Your task to perform on an android device: open app "The Home Depot" (install if not already installed), go to login, and select forgot password Image 0: 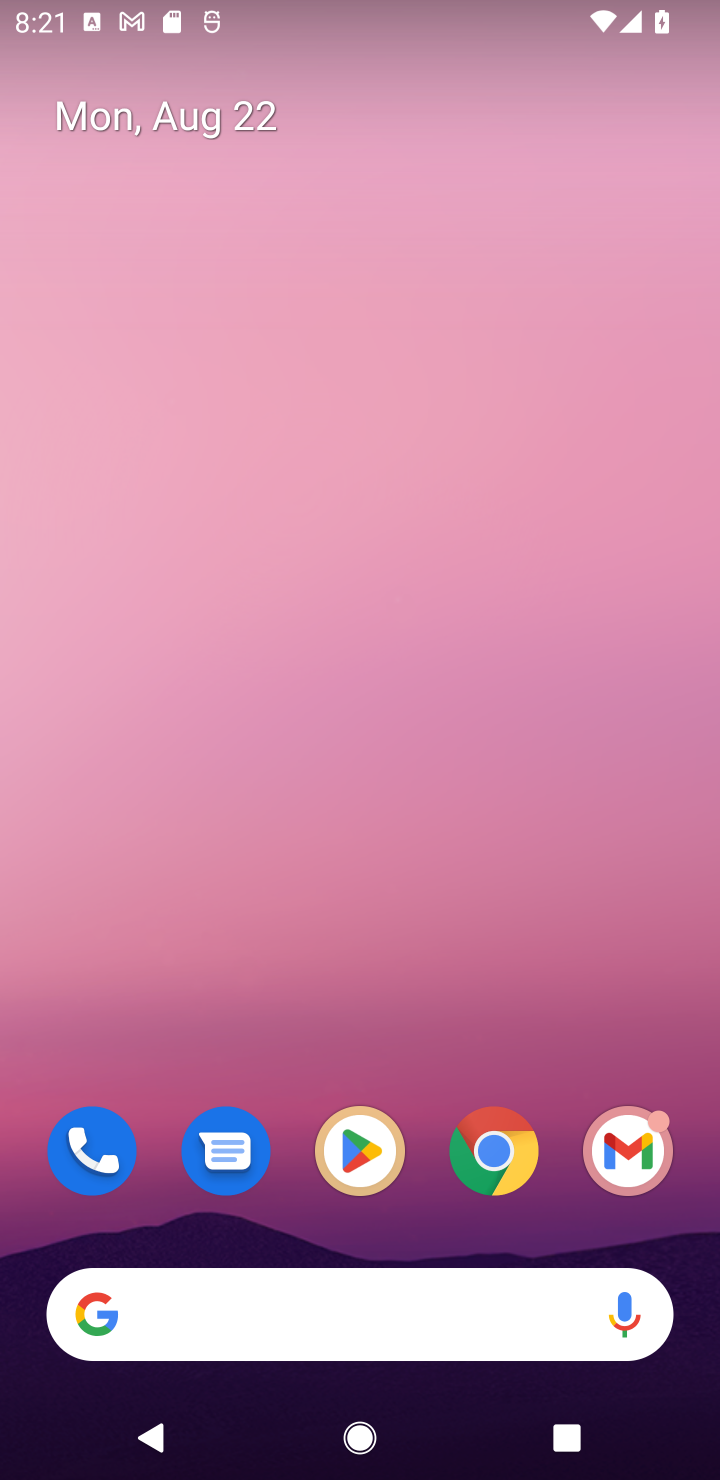
Step 0: click (357, 1160)
Your task to perform on an android device: open app "The Home Depot" (install if not already installed), go to login, and select forgot password Image 1: 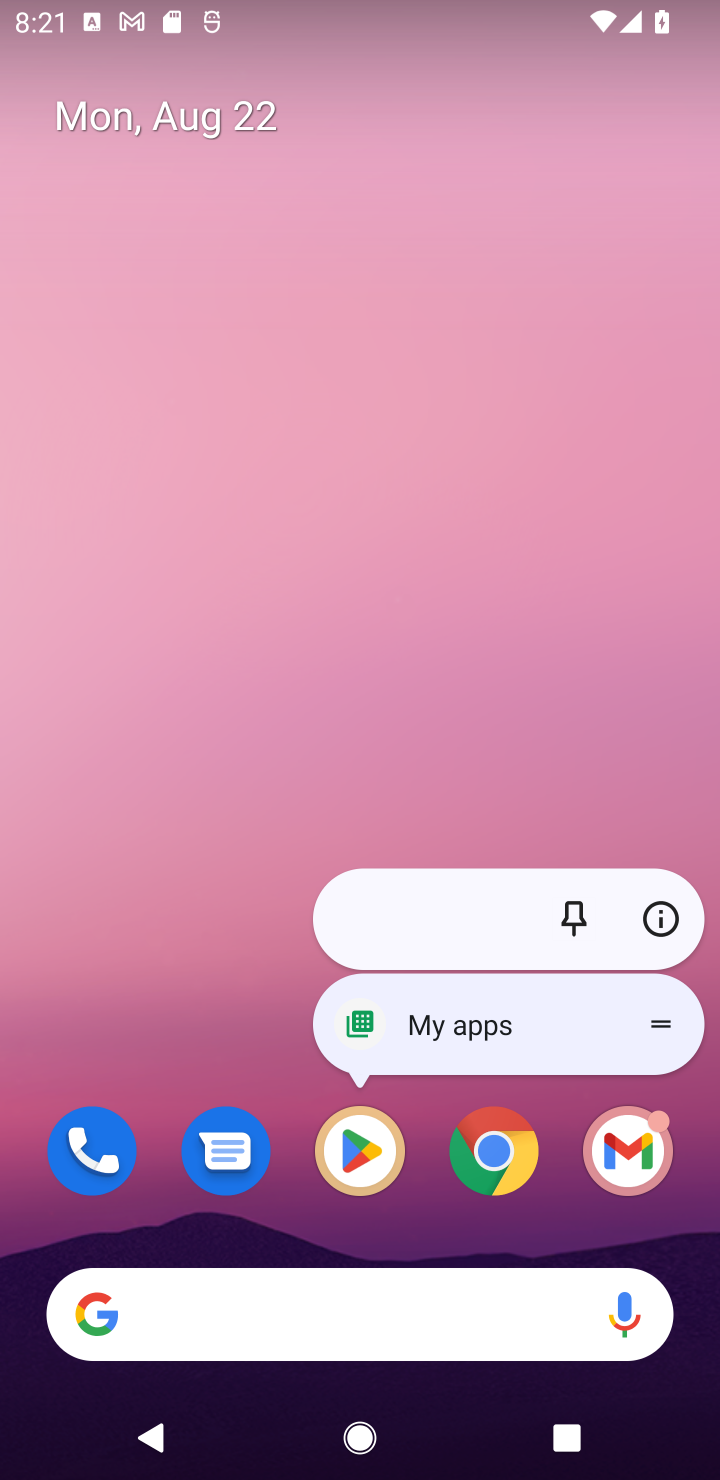
Step 1: click (357, 1171)
Your task to perform on an android device: open app "The Home Depot" (install if not already installed), go to login, and select forgot password Image 2: 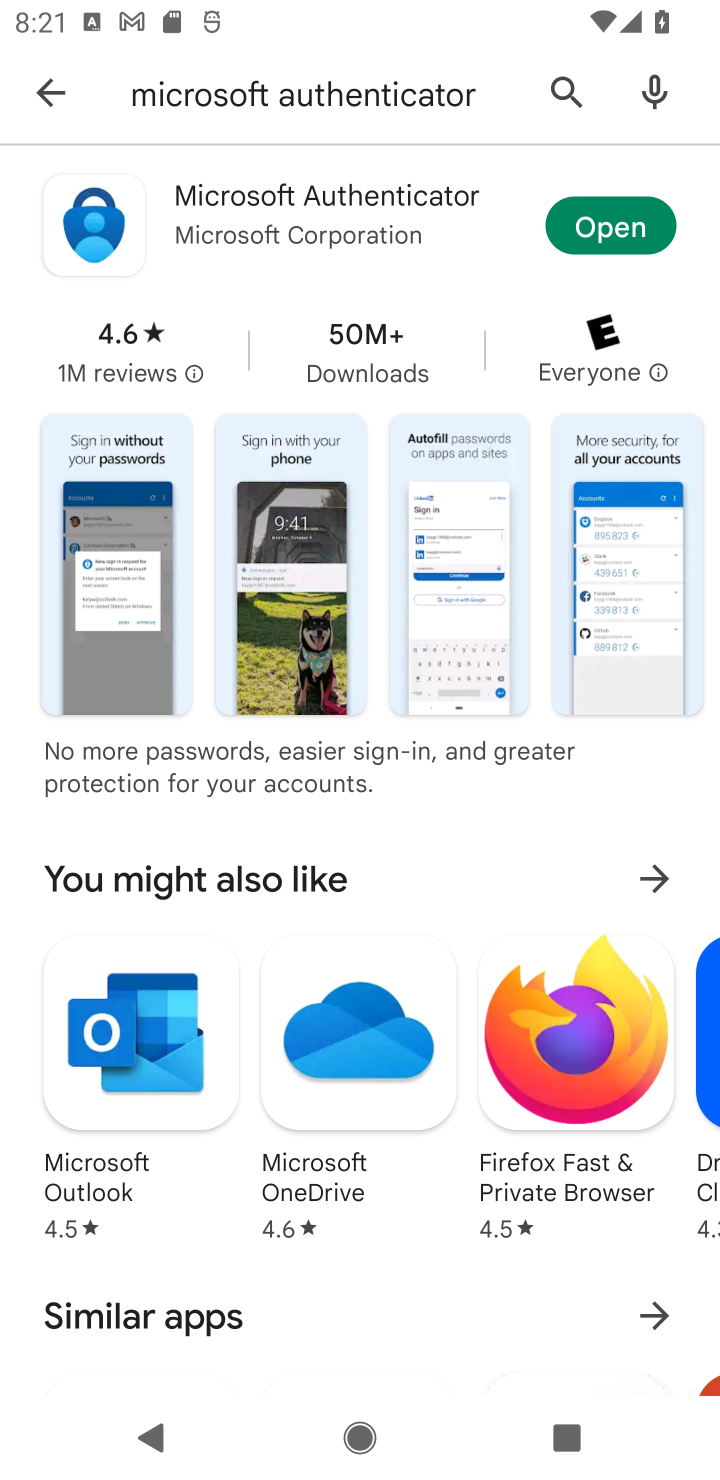
Step 2: click (553, 76)
Your task to perform on an android device: open app "The Home Depot" (install if not already installed), go to login, and select forgot password Image 3: 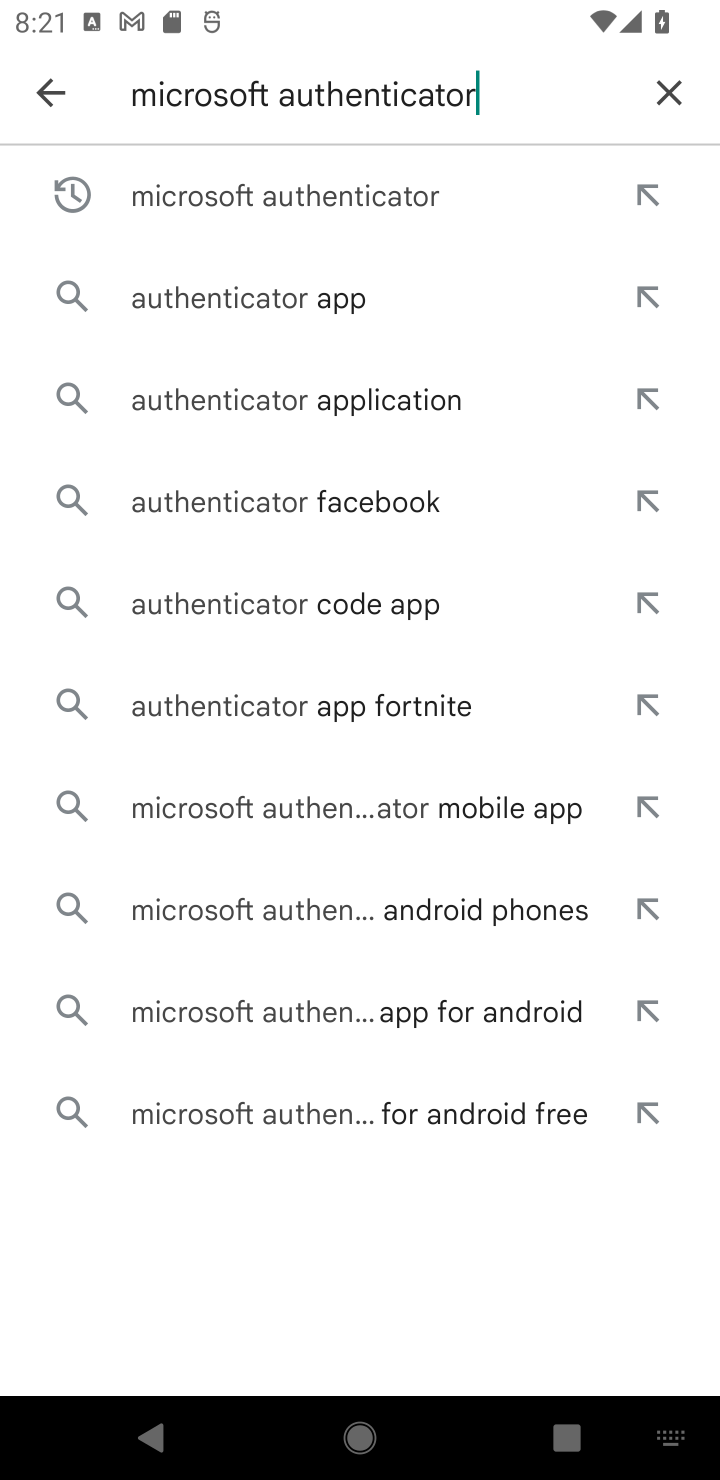
Step 3: click (691, 79)
Your task to perform on an android device: open app "The Home Depot" (install if not already installed), go to login, and select forgot password Image 4: 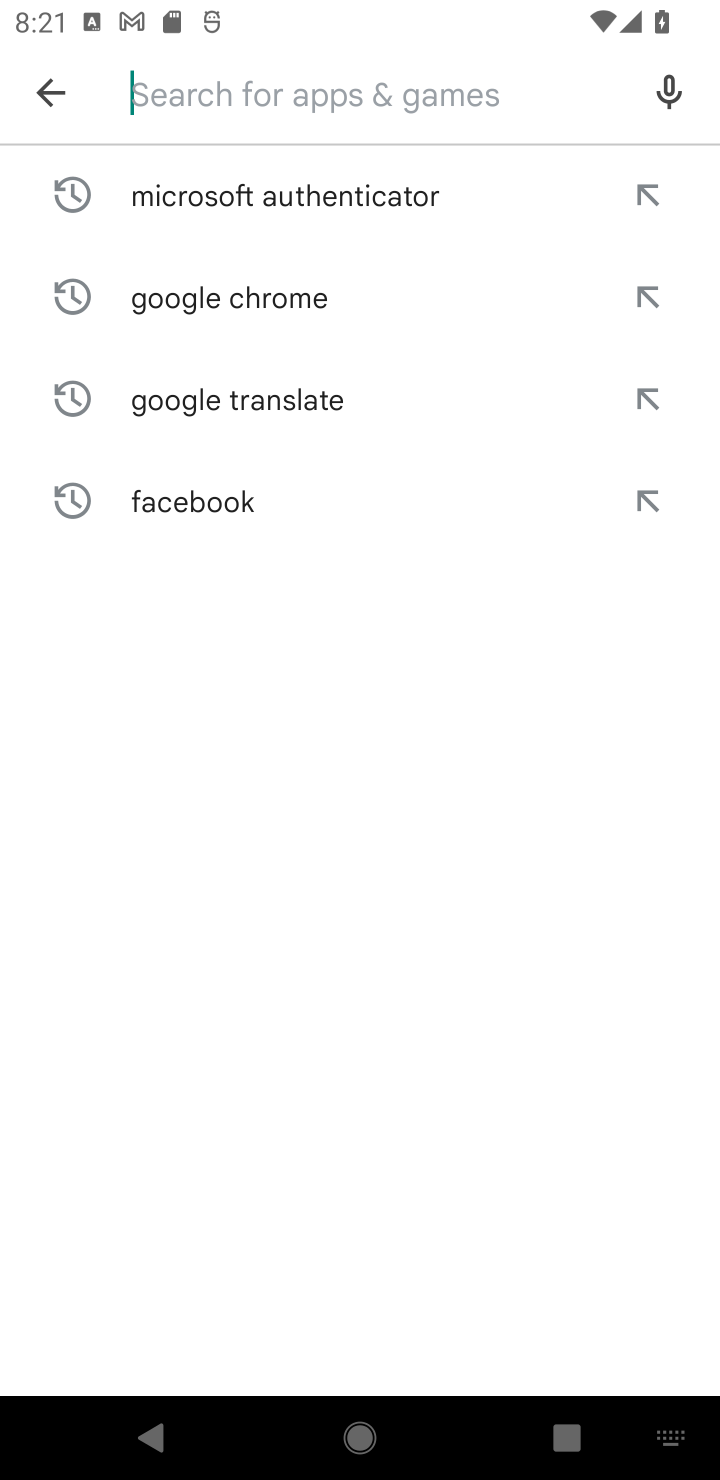
Step 4: type "The Home Depot"
Your task to perform on an android device: open app "The Home Depot" (install if not already installed), go to login, and select forgot password Image 5: 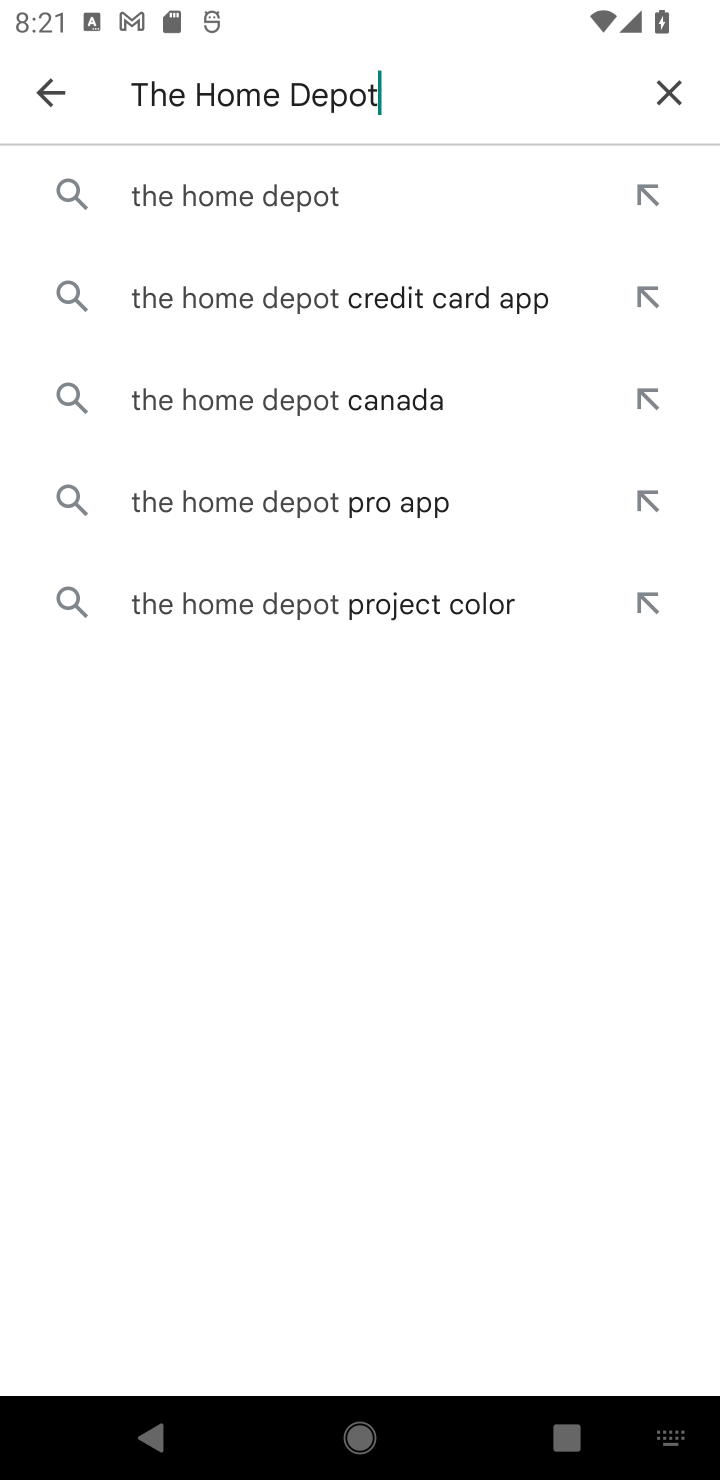
Step 5: click (242, 199)
Your task to perform on an android device: open app "The Home Depot" (install if not already installed), go to login, and select forgot password Image 6: 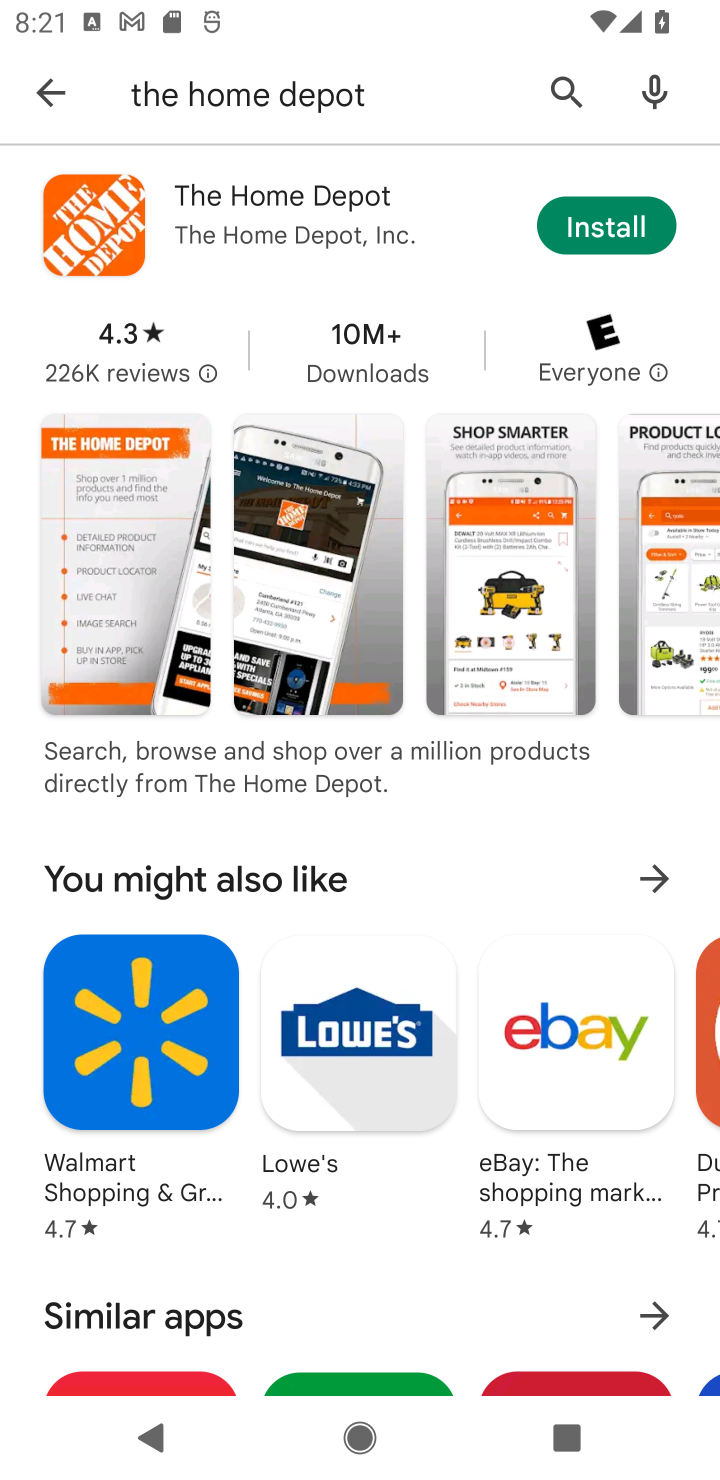
Step 6: click (595, 231)
Your task to perform on an android device: open app "The Home Depot" (install if not already installed), go to login, and select forgot password Image 7: 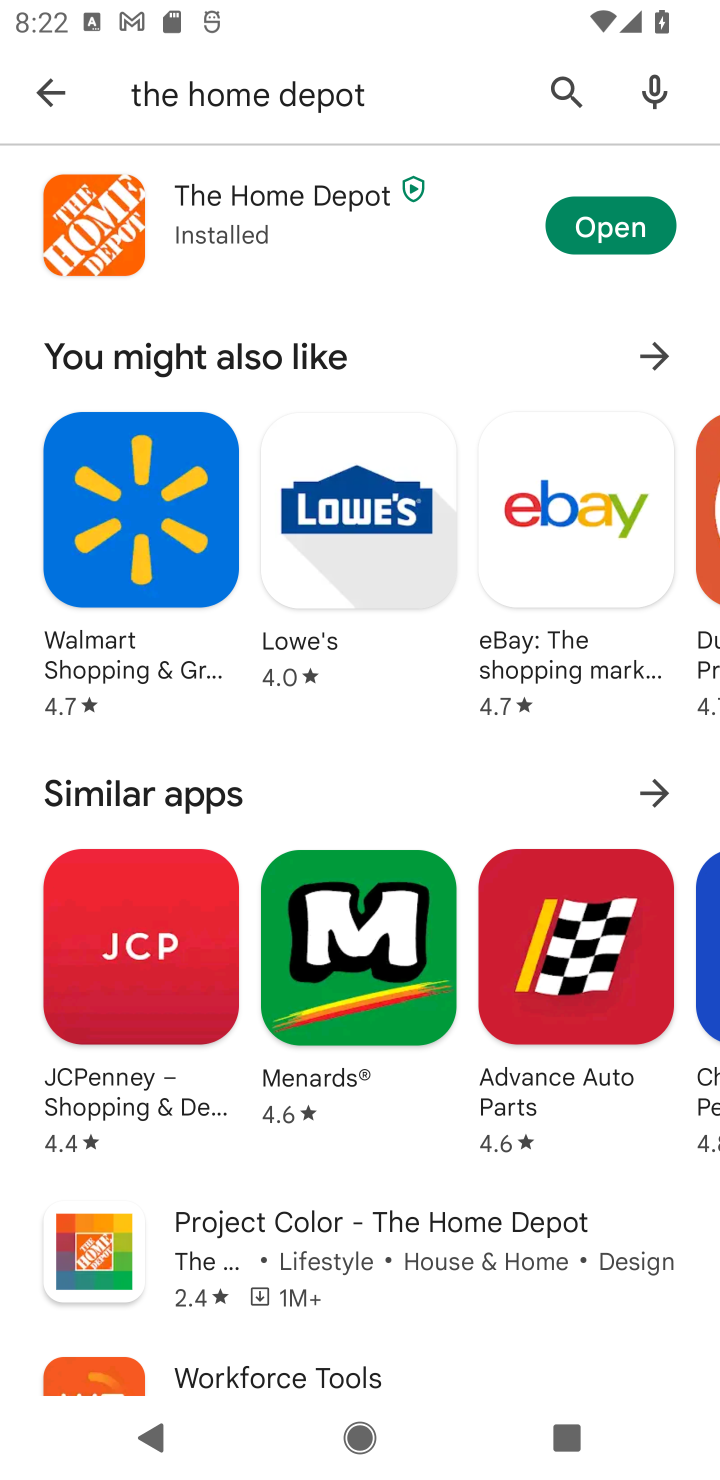
Step 7: click (597, 226)
Your task to perform on an android device: open app "The Home Depot" (install if not already installed), go to login, and select forgot password Image 8: 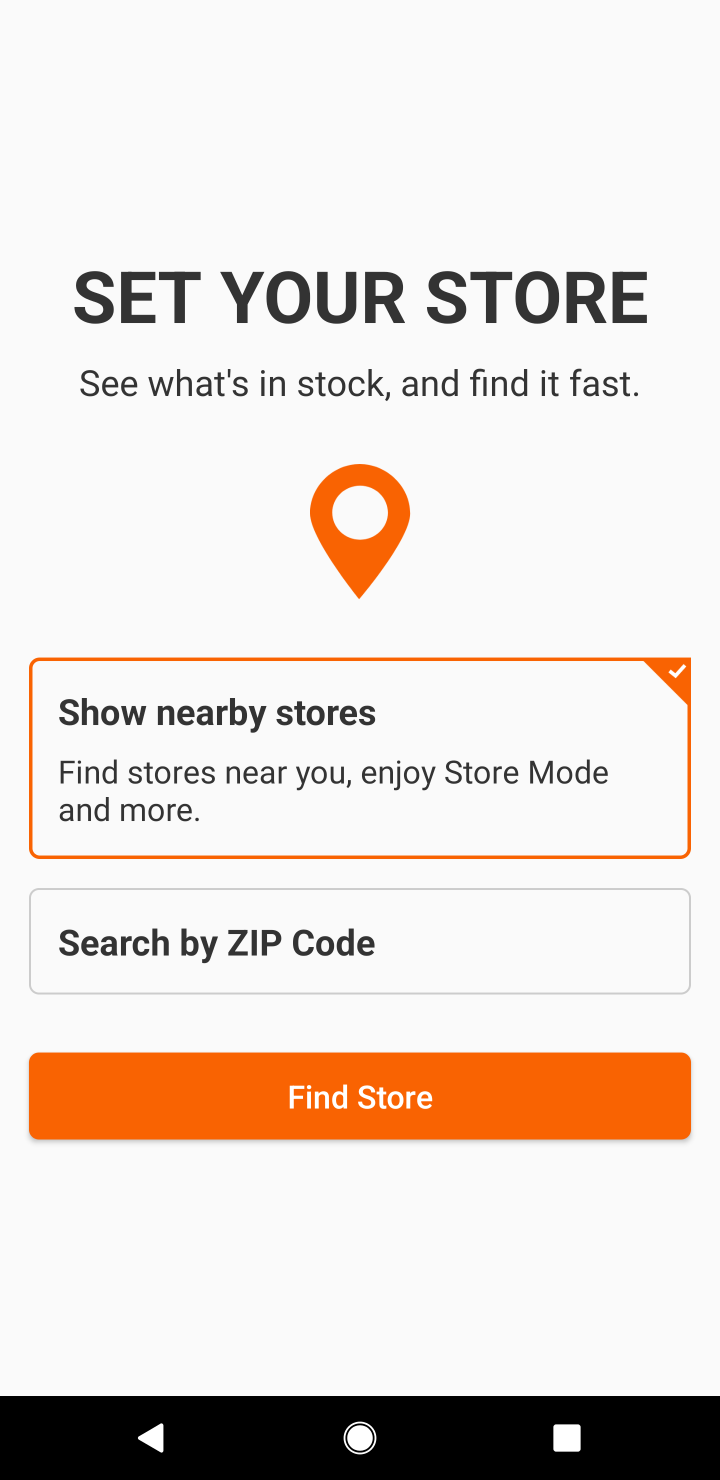
Step 8: task complete